Your task to perform on an android device: turn off wifi Image 0: 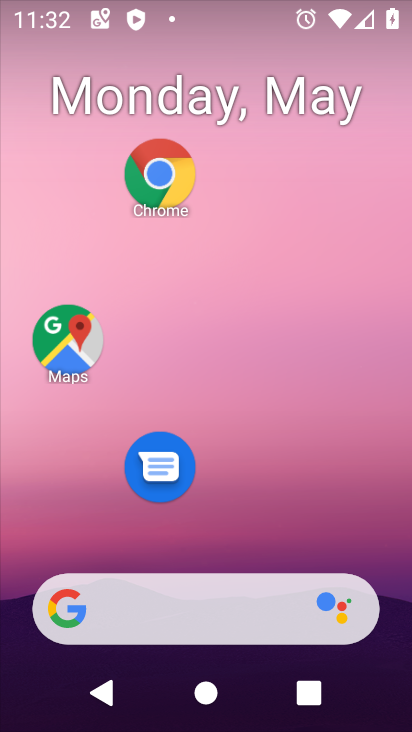
Step 0: drag from (256, 532) to (256, 149)
Your task to perform on an android device: turn off wifi Image 1: 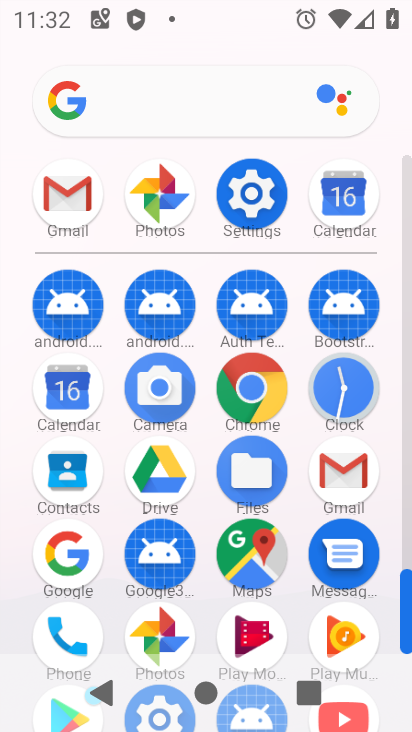
Step 1: click (270, 220)
Your task to perform on an android device: turn off wifi Image 2: 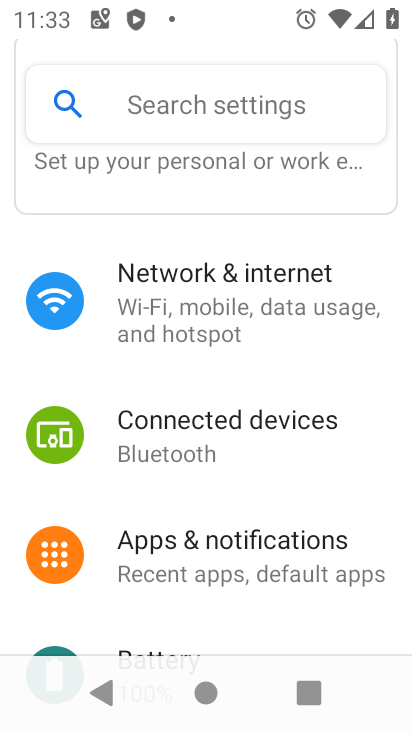
Step 2: click (254, 296)
Your task to perform on an android device: turn off wifi Image 3: 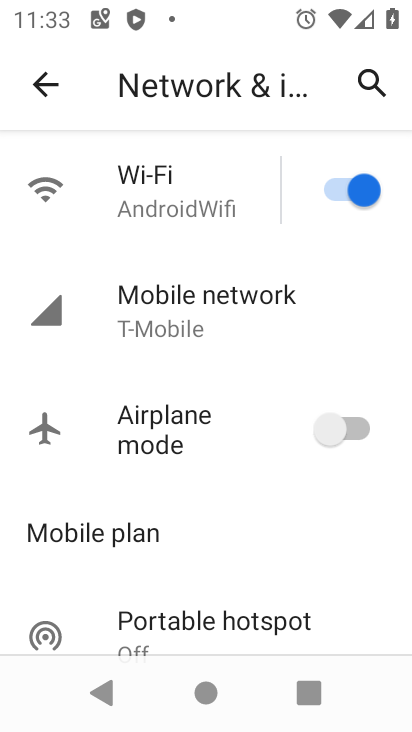
Step 3: click (168, 204)
Your task to perform on an android device: turn off wifi Image 4: 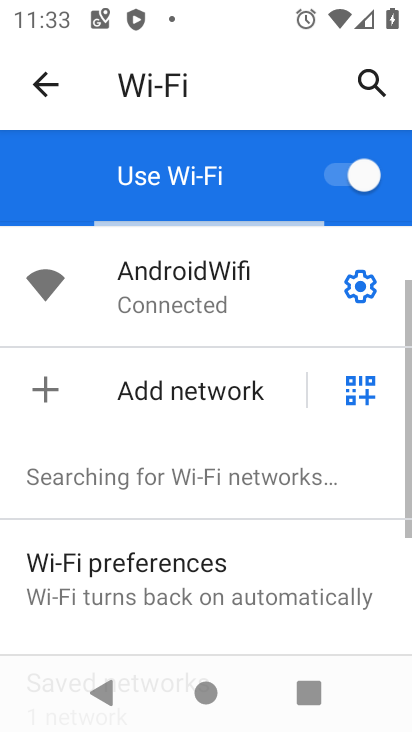
Step 4: click (321, 190)
Your task to perform on an android device: turn off wifi Image 5: 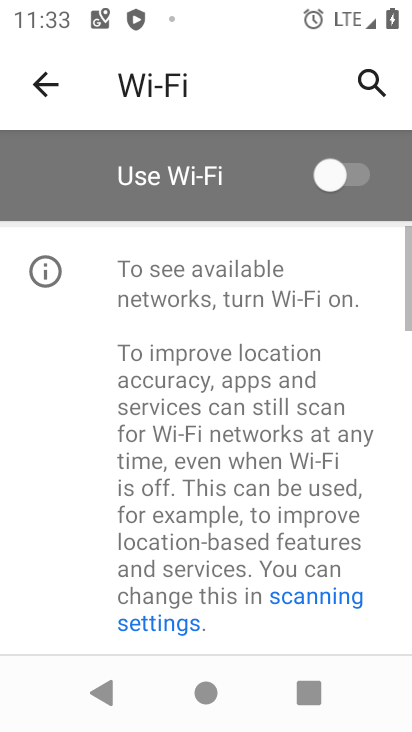
Step 5: task complete